Your task to perform on an android device: View the shopping cart on ebay.com. Add "usb-c to usb-b" to the cart on ebay.com Image 0: 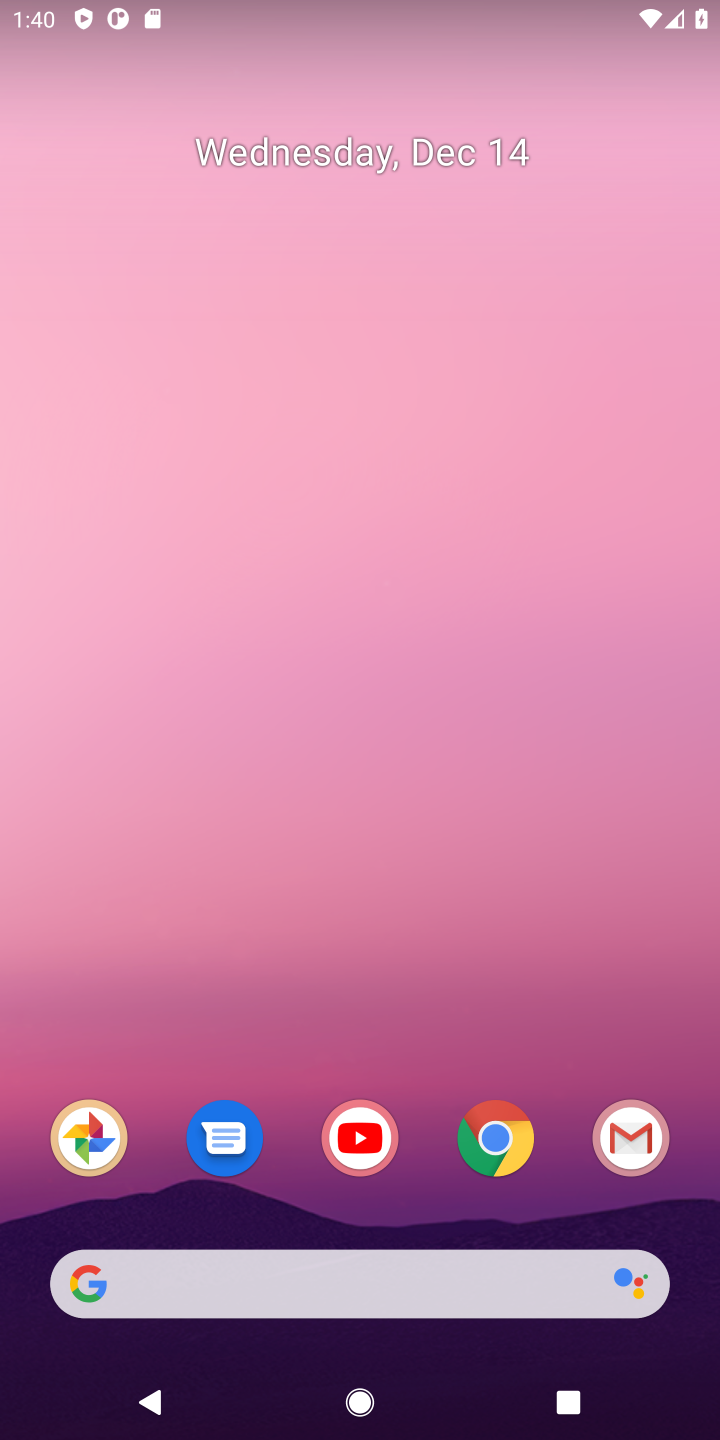
Step 0: click (483, 1150)
Your task to perform on an android device: View the shopping cart on ebay.com. Add "usb-c to usb-b" to the cart on ebay.com Image 1: 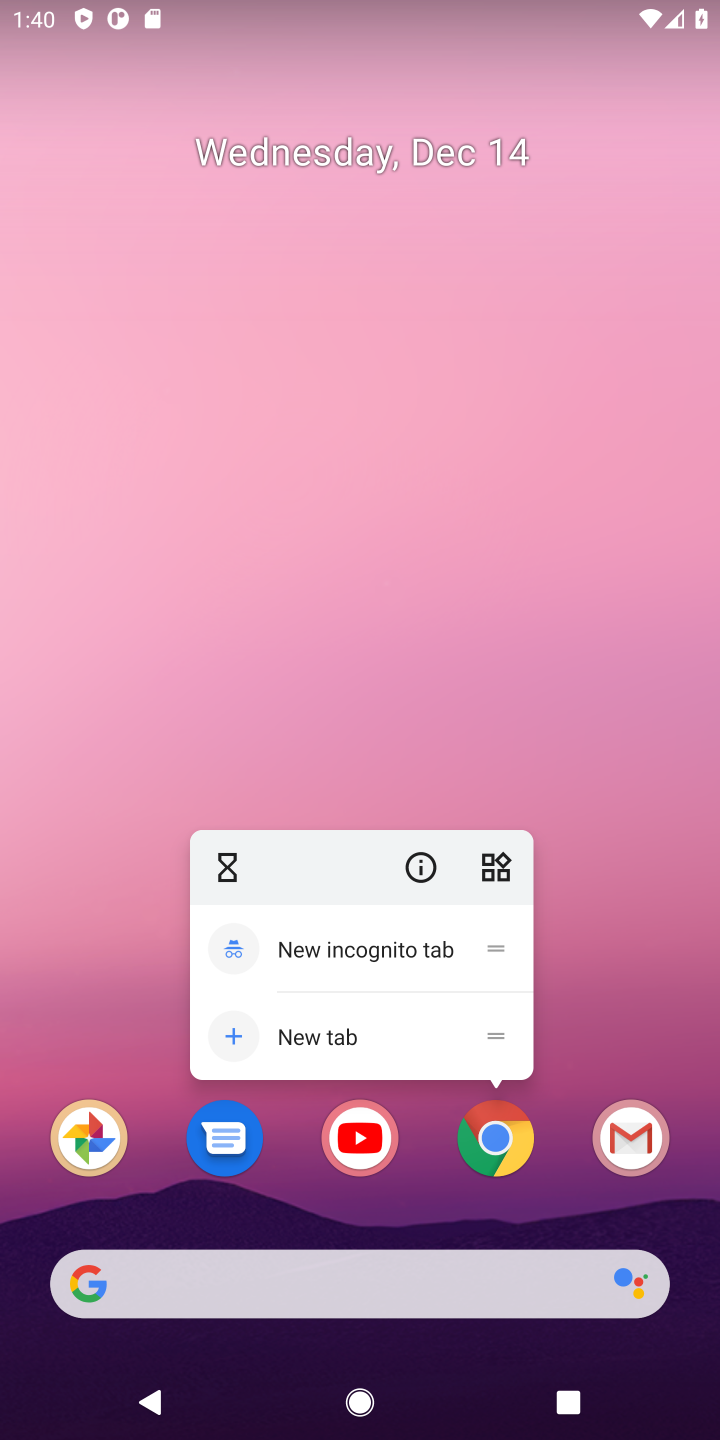
Step 1: click (483, 1150)
Your task to perform on an android device: View the shopping cart on ebay.com. Add "usb-c to usb-b" to the cart on ebay.com Image 2: 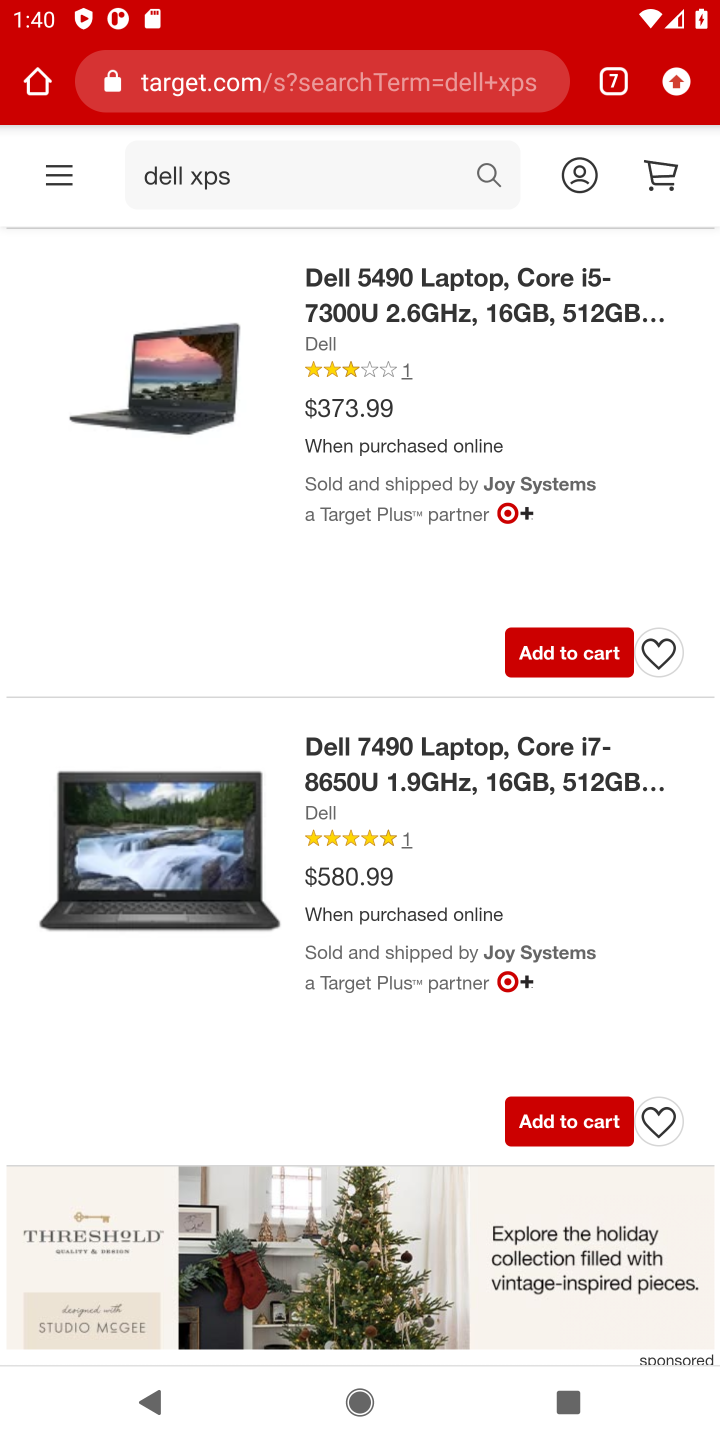
Step 2: click (604, 87)
Your task to perform on an android device: View the shopping cart on ebay.com. Add "usb-c to usb-b" to the cart on ebay.com Image 3: 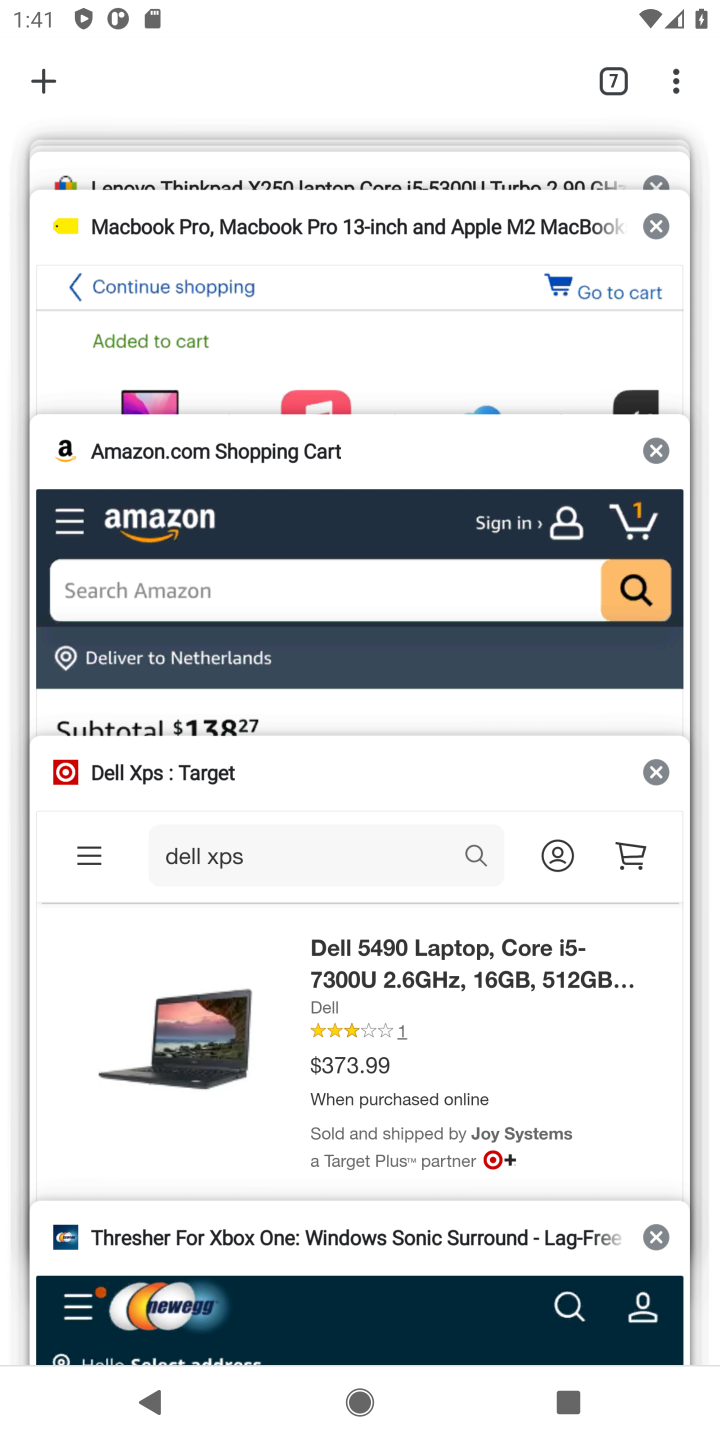
Step 3: click (286, 172)
Your task to perform on an android device: View the shopping cart on ebay.com. Add "usb-c to usb-b" to the cart on ebay.com Image 4: 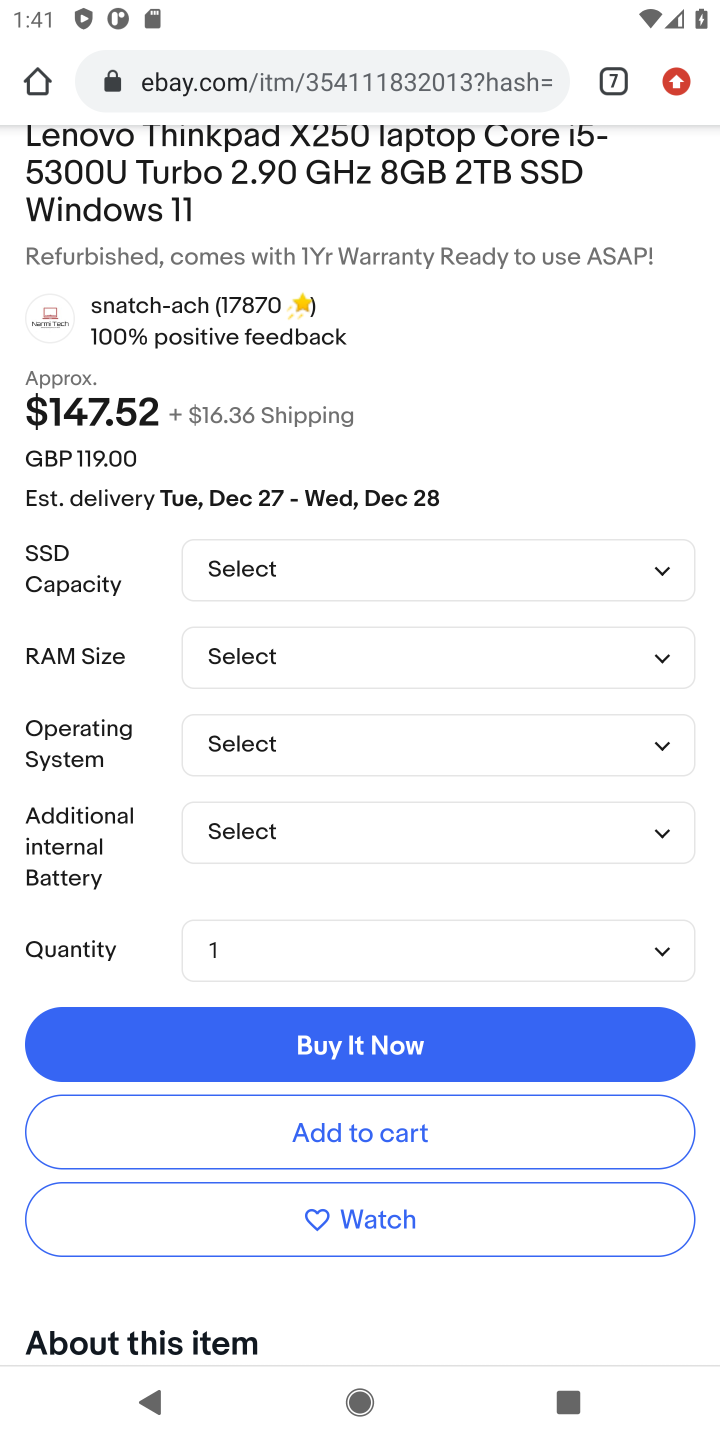
Step 4: drag from (482, 371) to (509, 1042)
Your task to perform on an android device: View the shopping cart on ebay.com. Add "usb-c to usb-b" to the cart on ebay.com Image 5: 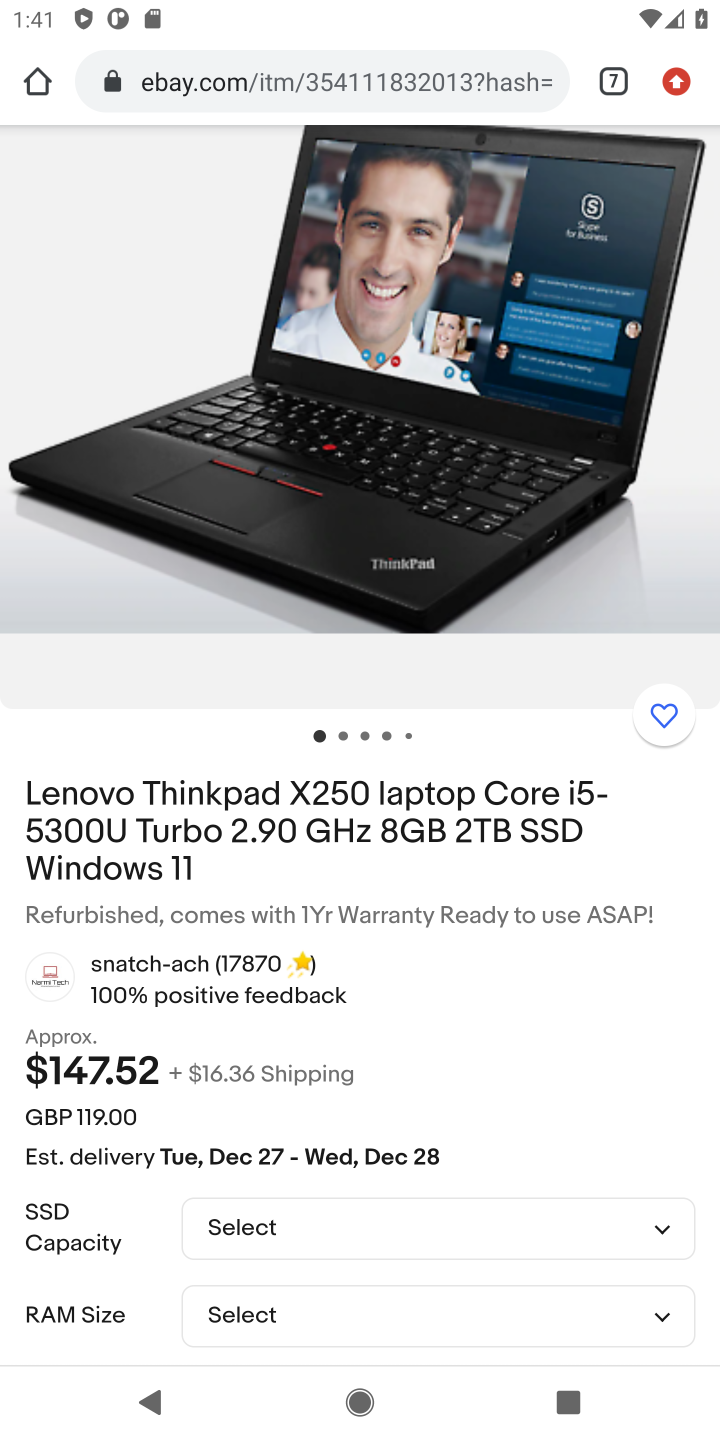
Step 5: drag from (593, 206) to (563, 1112)
Your task to perform on an android device: View the shopping cart on ebay.com. Add "usb-c to usb-b" to the cart on ebay.com Image 6: 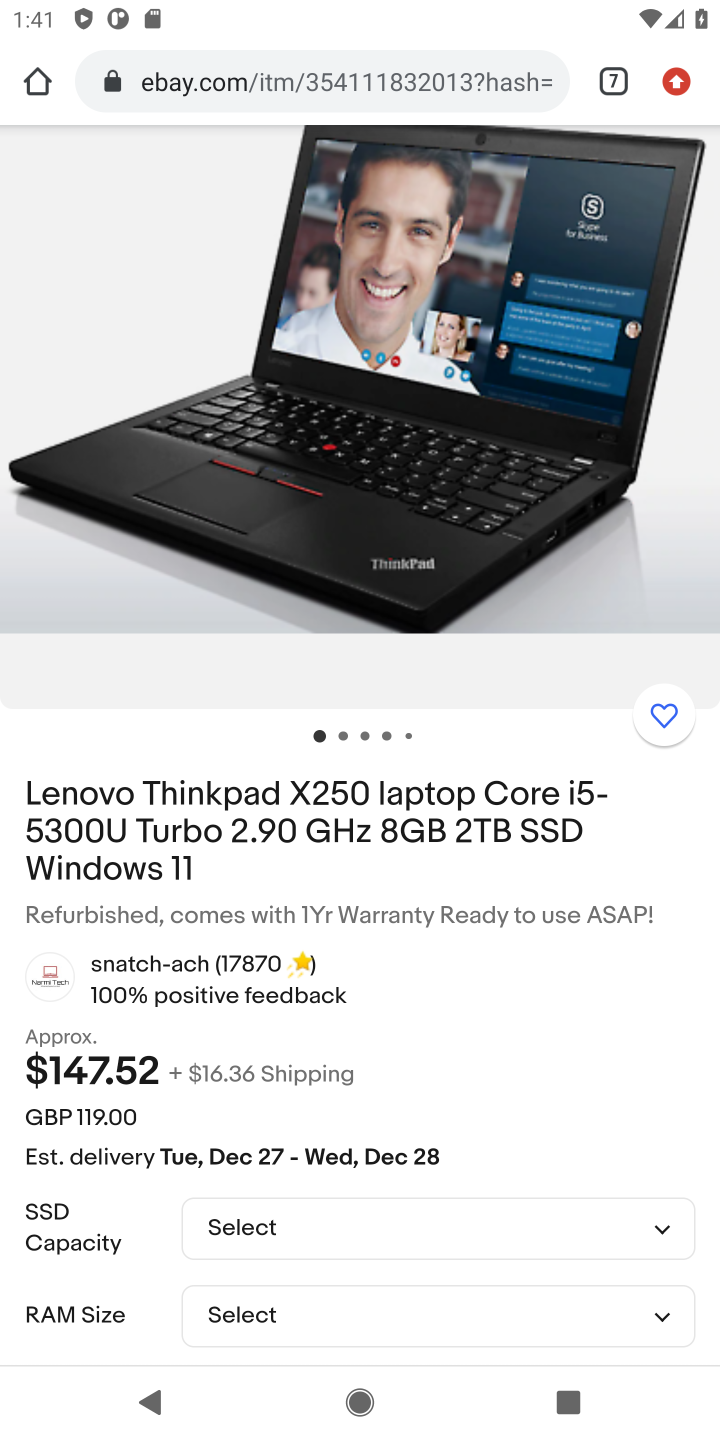
Step 6: drag from (461, 300) to (483, 1041)
Your task to perform on an android device: View the shopping cart on ebay.com. Add "usb-c to usb-b" to the cart on ebay.com Image 7: 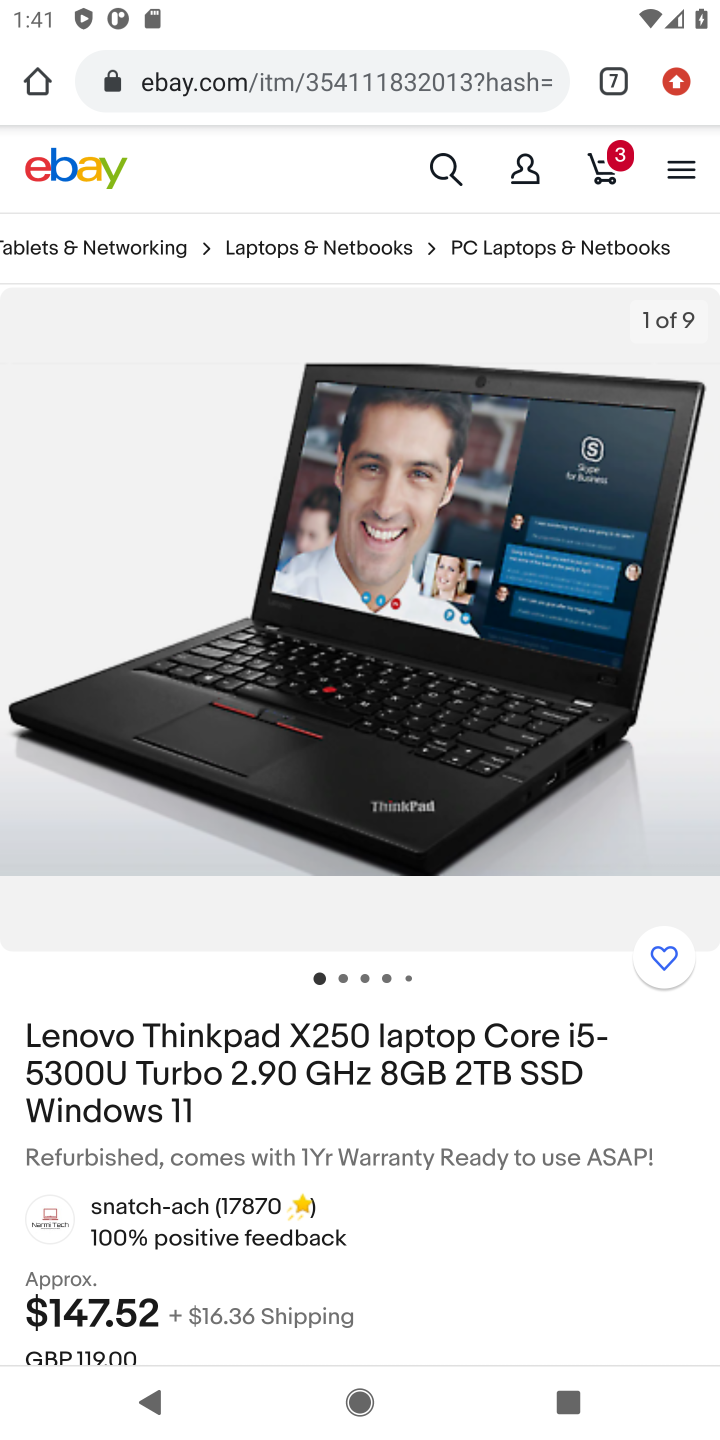
Step 7: click (596, 170)
Your task to perform on an android device: View the shopping cart on ebay.com. Add "usb-c to usb-b" to the cart on ebay.com Image 8: 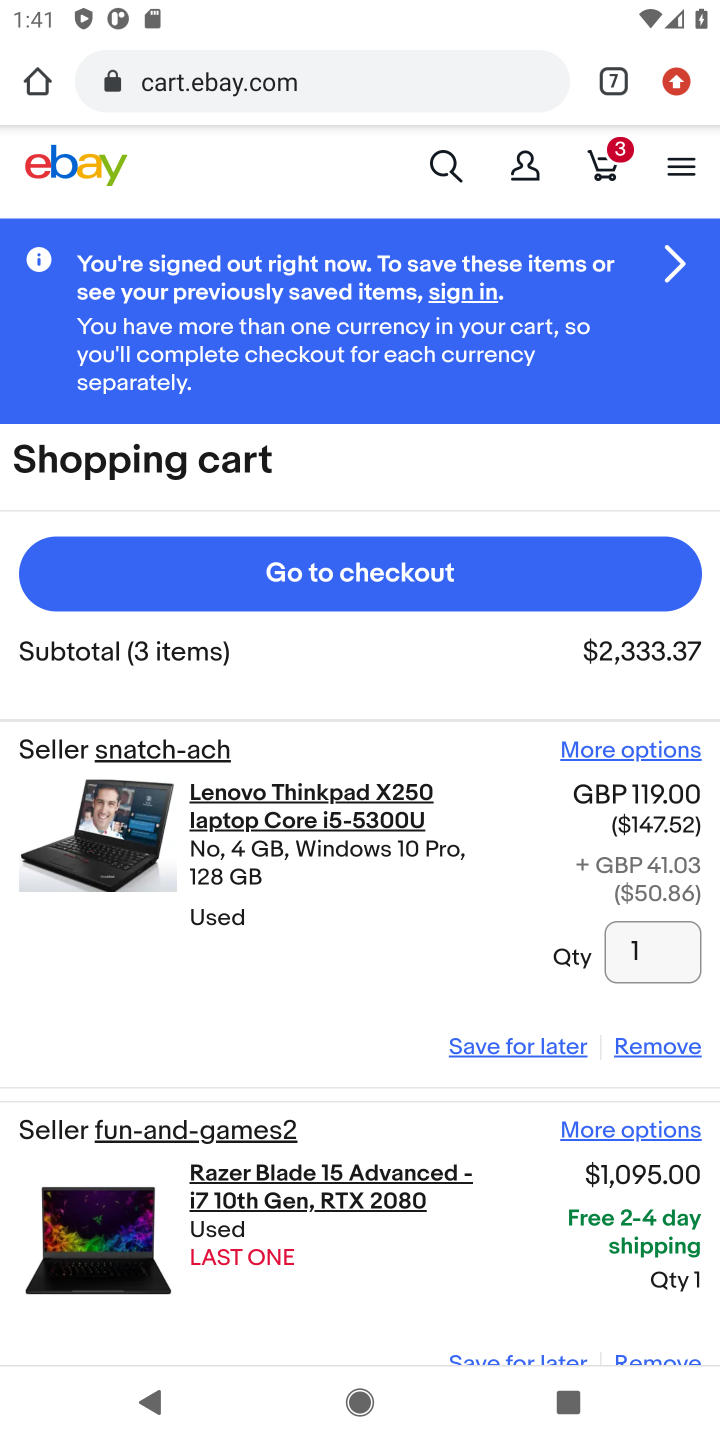
Step 8: click (445, 168)
Your task to perform on an android device: View the shopping cart on ebay.com. Add "usb-c to usb-b" to the cart on ebay.com Image 9: 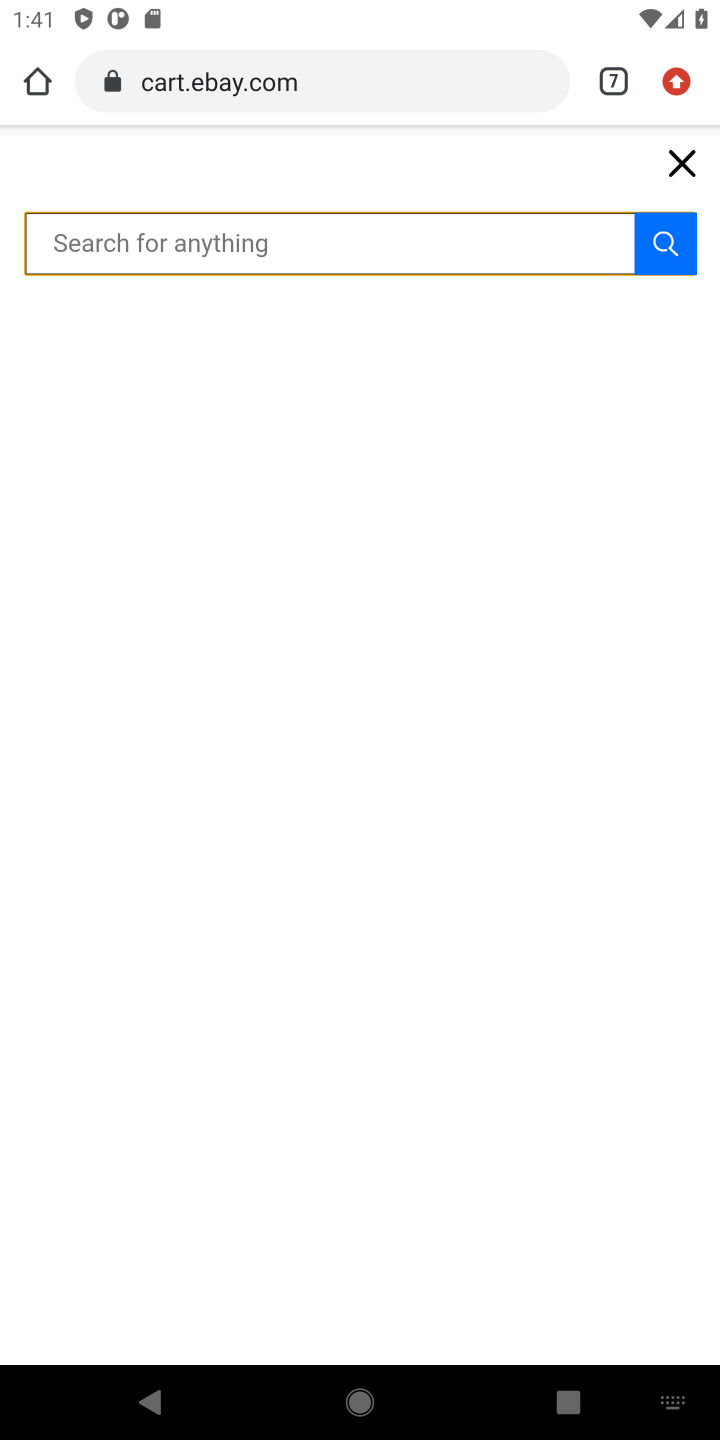
Step 9: type "usb-c to usb-b"
Your task to perform on an android device: View the shopping cart on ebay.com. Add "usb-c to usb-b" to the cart on ebay.com Image 10: 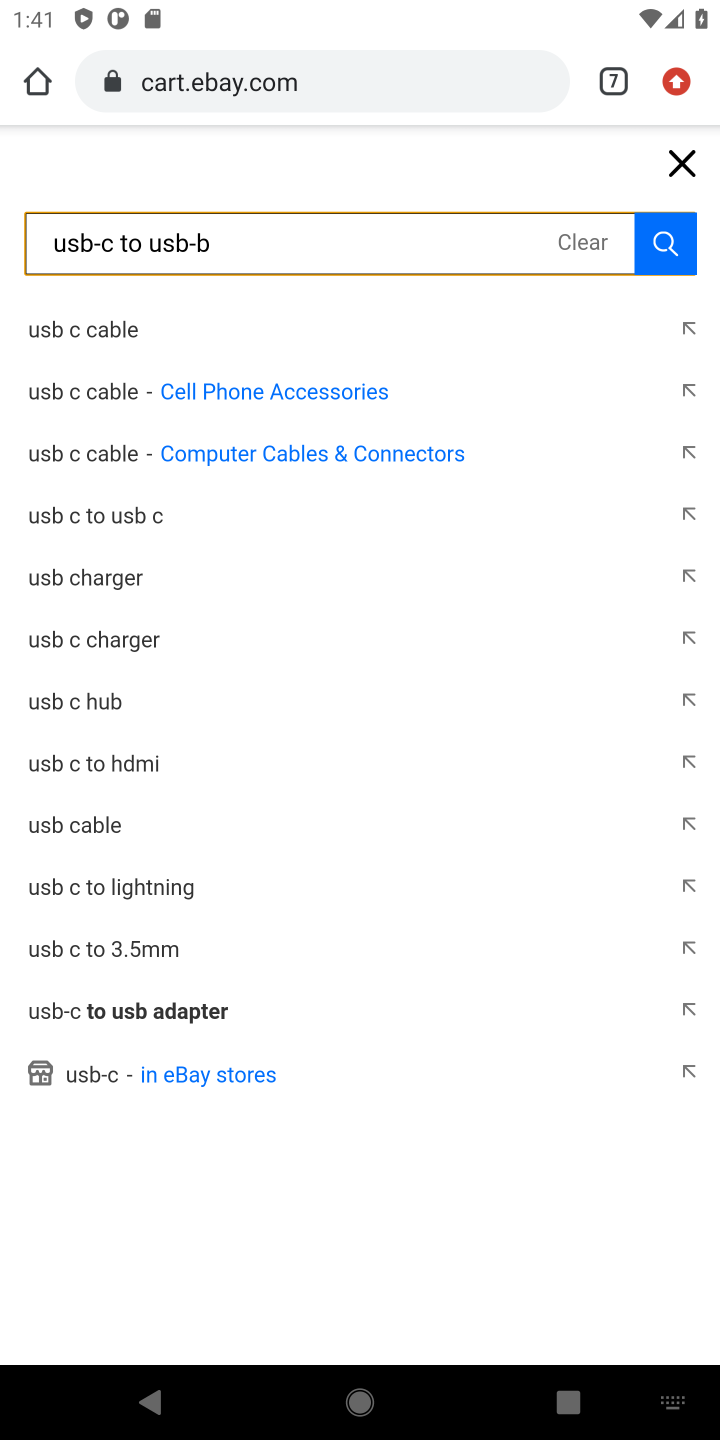
Step 10: click (658, 241)
Your task to perform on an android device: View the shopping cart on ebay.com. Add "usb-c to usb-b" to the cart on ebay.com Image 11: 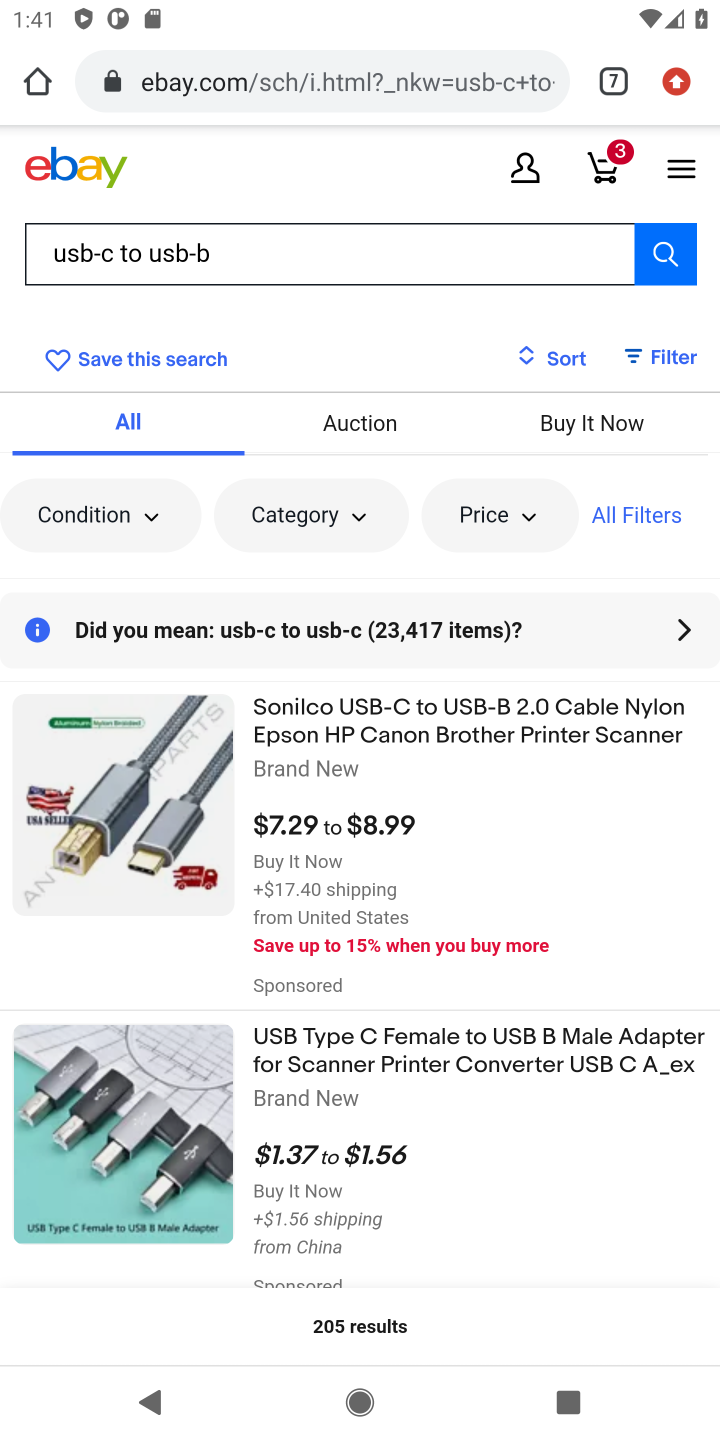
Step 11: click (419, 1047)
Your task to perform on an android device: View the shopping cart on ebay.com. Add "usb-c to usb-b" to the cart on ebay.com Image 12: 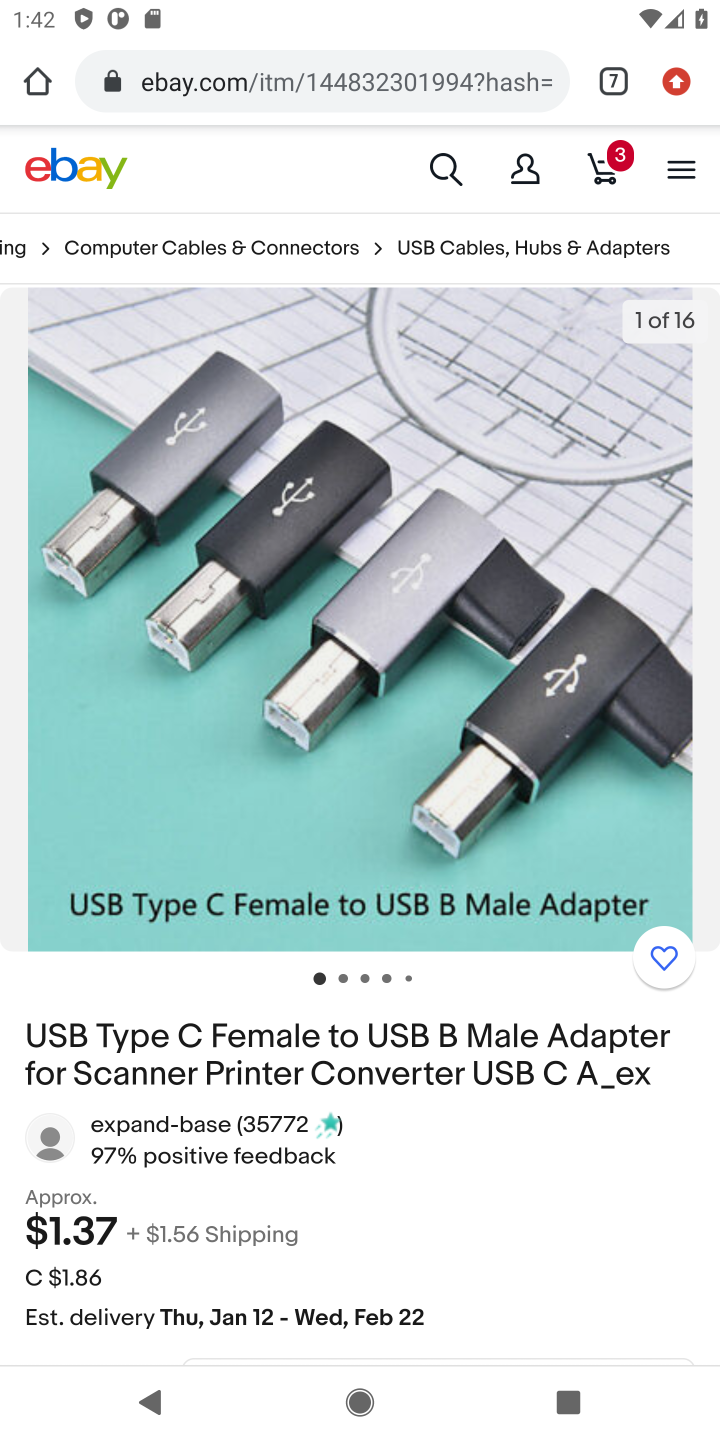
Step 12: drag from (391, 1215) to (502, 494)
Your task to perform on an android device: View the shopping cart on ebay.com. Add "usb-c to usb-b" to the cart on ebay.com Image 13: 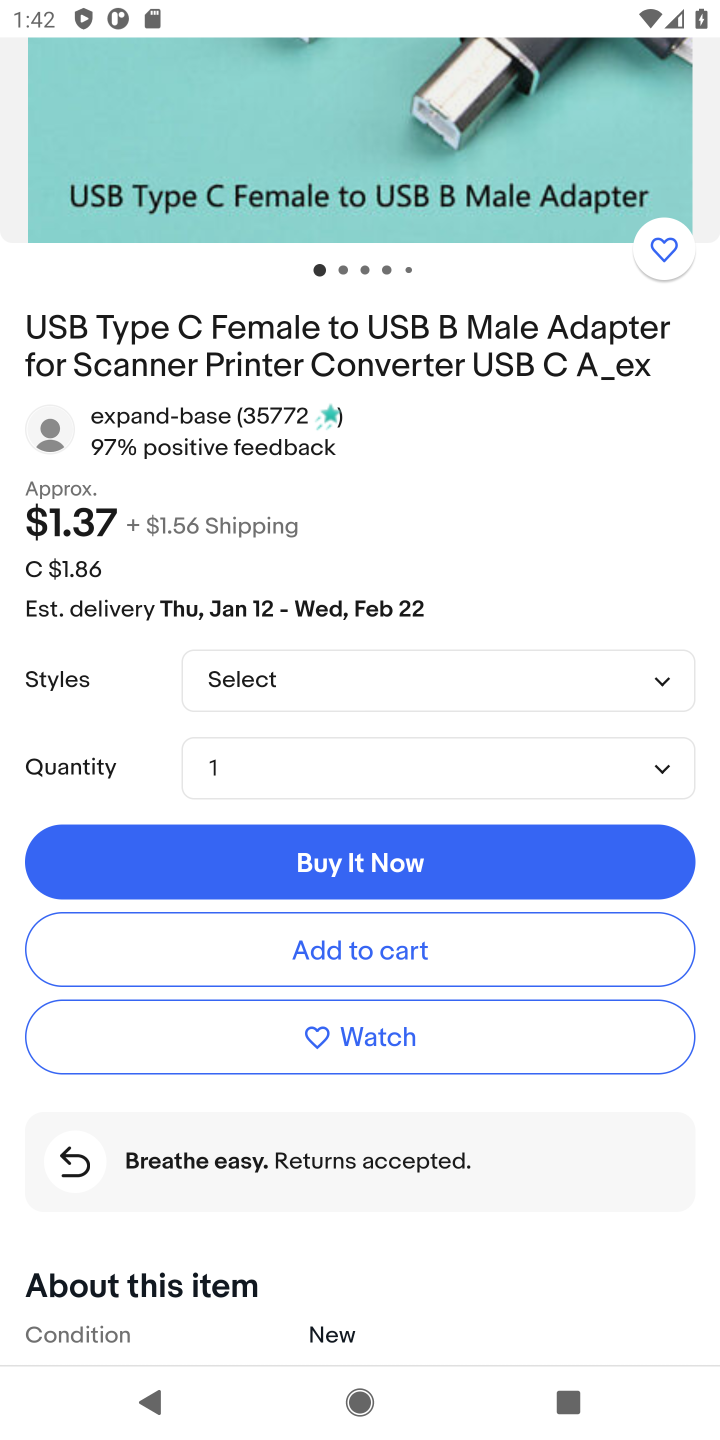
Step 13: click (401, 956)
Your task to perform on an android device: View the shopping cart on ebay.com. Add "usb-c to usb-b" to the cart on ebay.com Image 14: 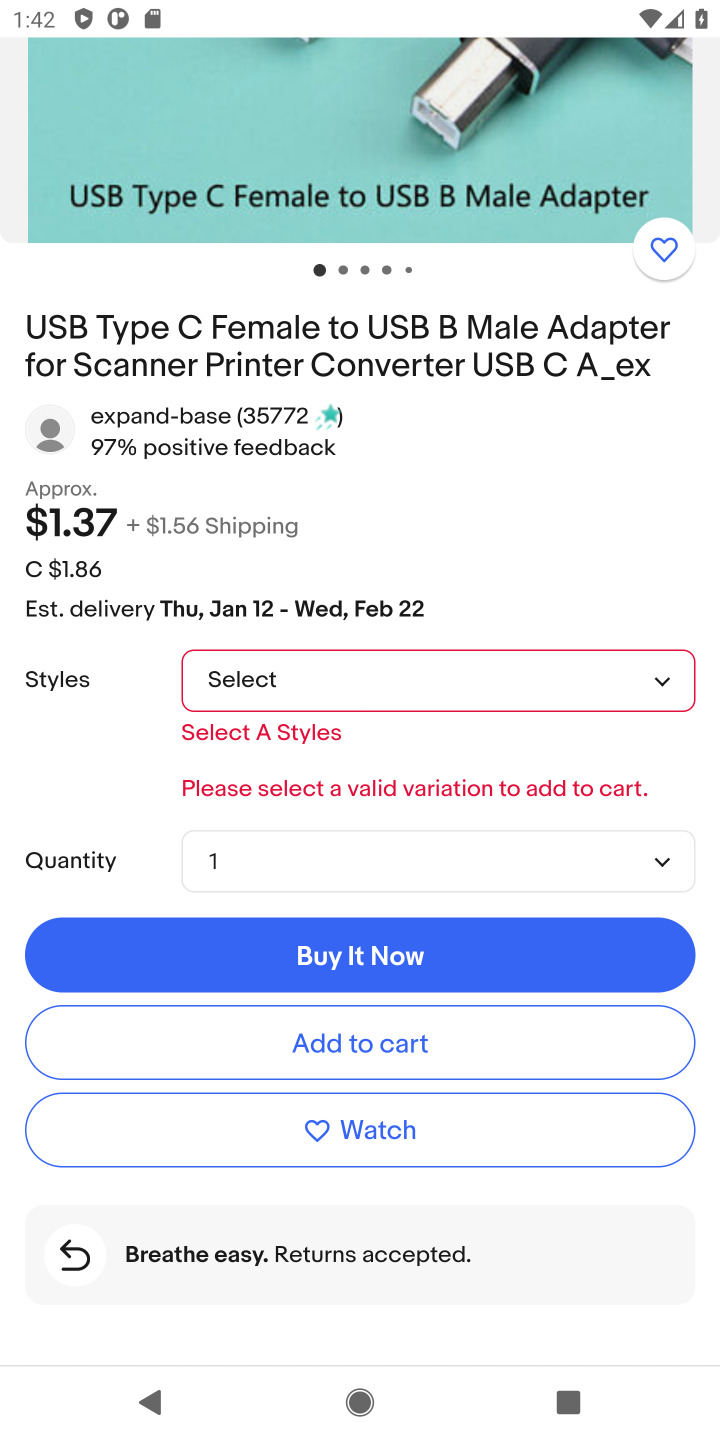
Step 14: click (674, 688)
Your task to perform on an android device: View the shopping cart on ebay.com. Add "usb-c to usb-b" to the cart on ebay.com Image 15: 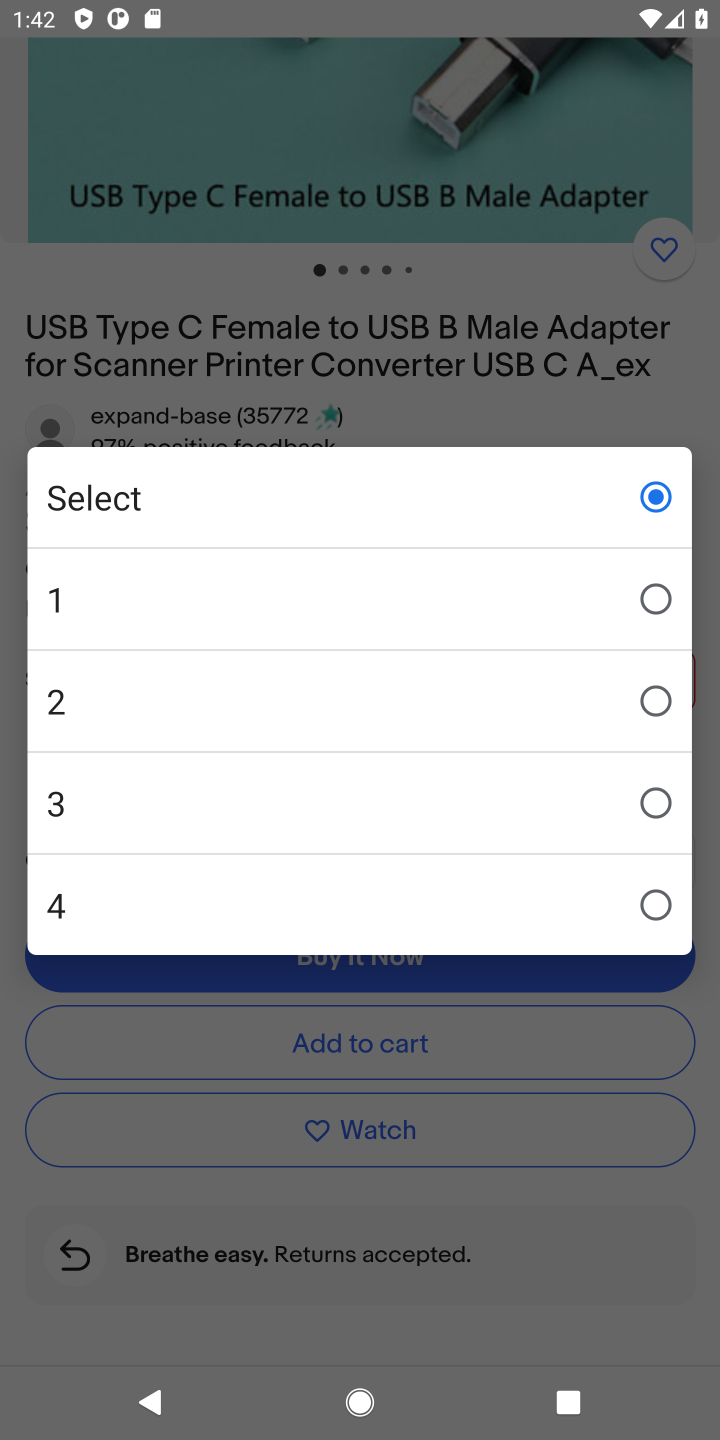
Step 15: click (656, 605)
Your task to perform on an android device: View the shopping cart on ebay.com. Add "usb-c to usb-b" to the cart on ebay.com Image 16: 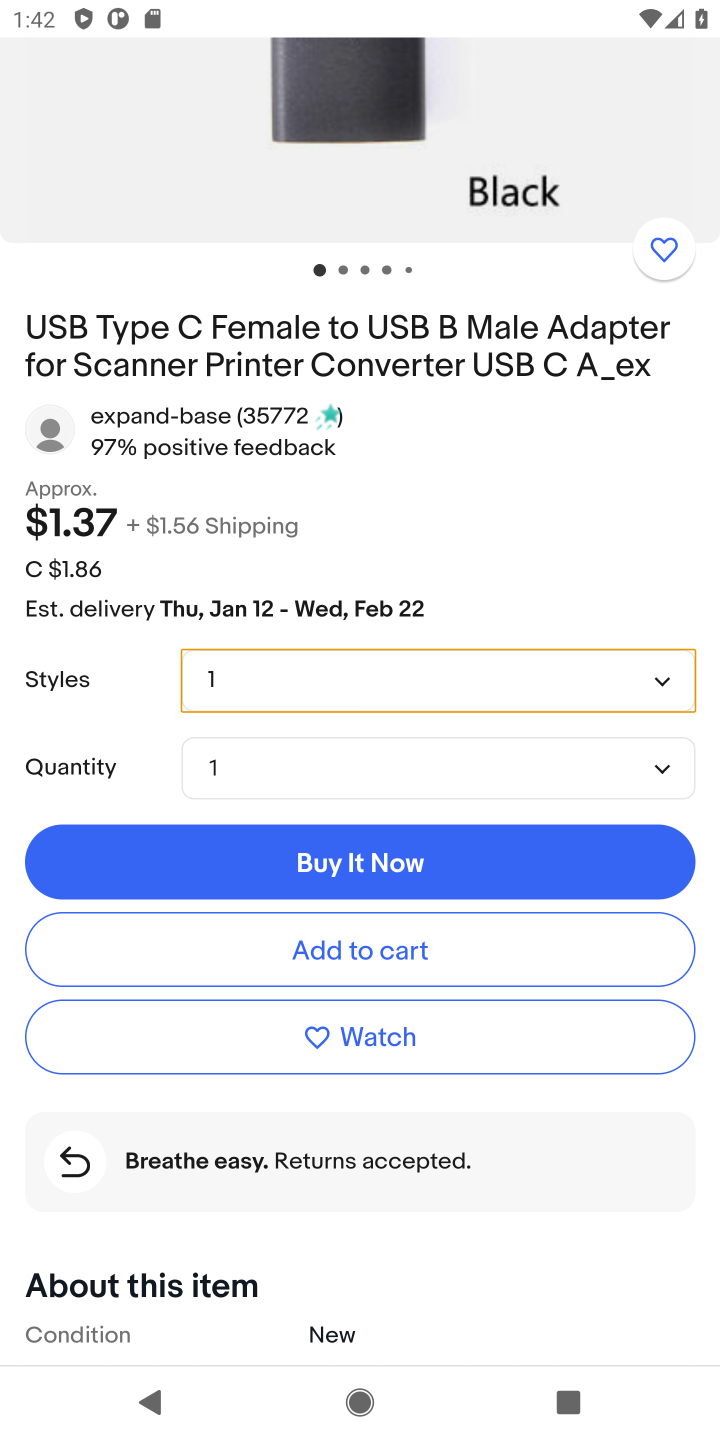
Step 16: click (411, 955)
Your task to perform on an android device: View the shopping cart on ebay.com. Add "usb-c to usb-b" to the cart on ebay.com Image 17: 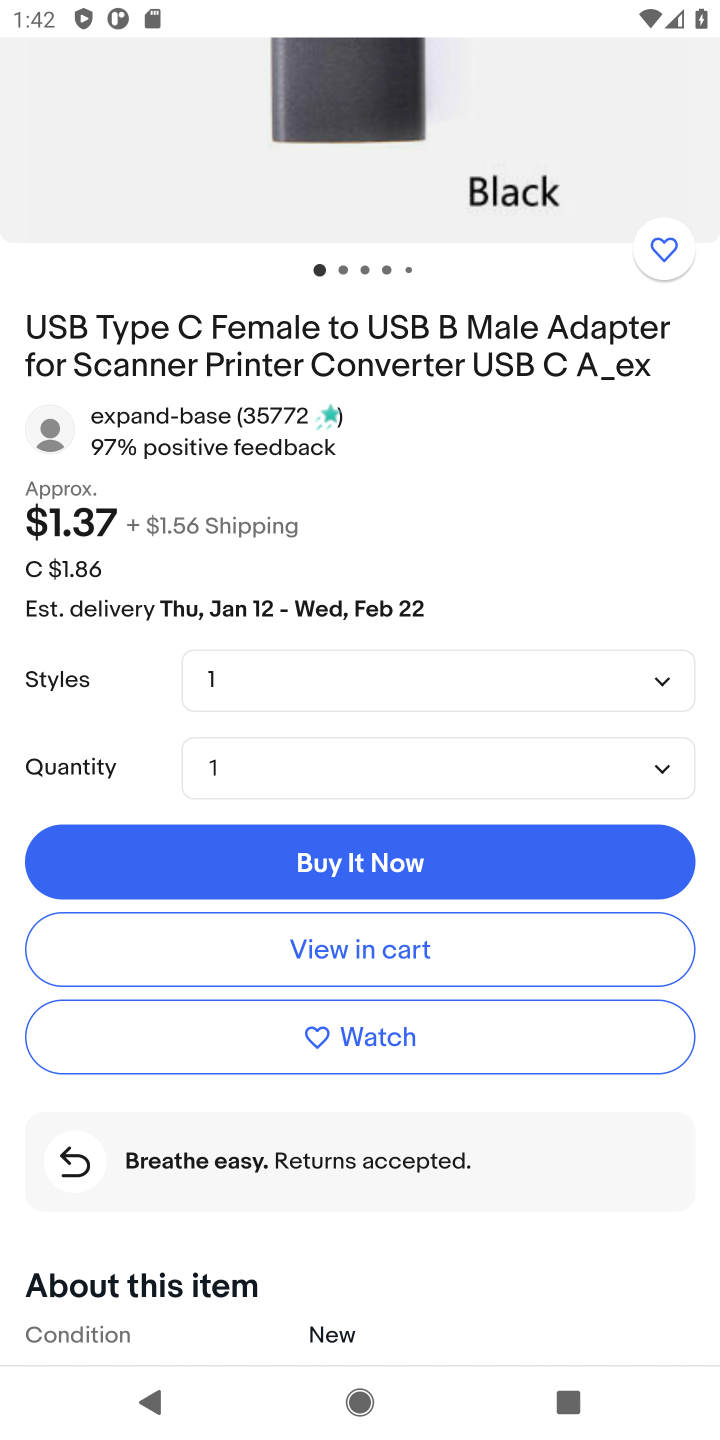
Step 17: task complete